Your task to perform on an android device: Find coffee shops on Maps Image 0: 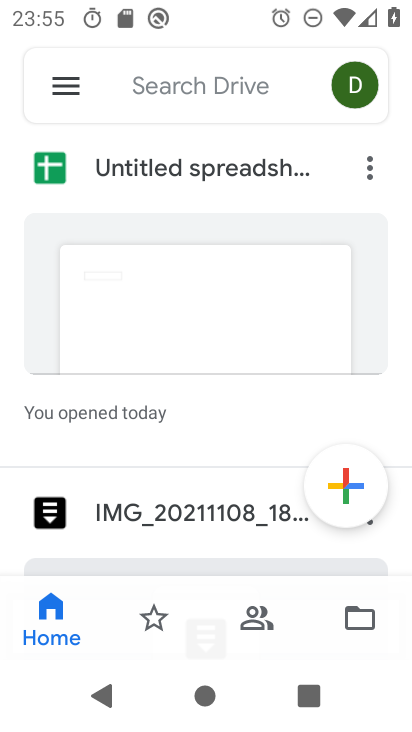
Step 0: press home button
Your task to perform on an android device: Find coffee shops on Maps Image 1: 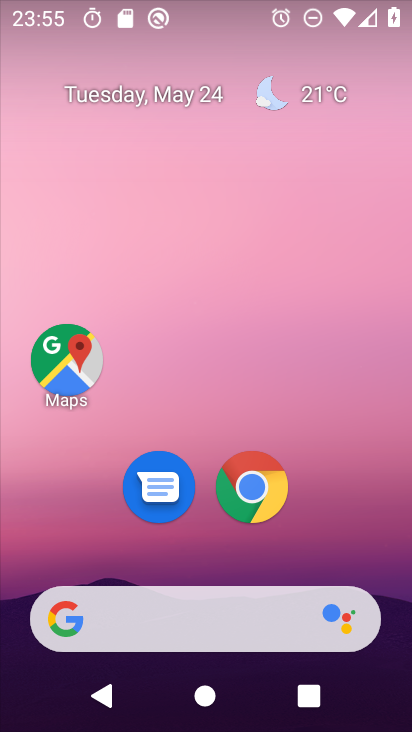
Step 1: click (70, 363)
Your task to perform on an android device: Find coffee shops on Maps Image 2: 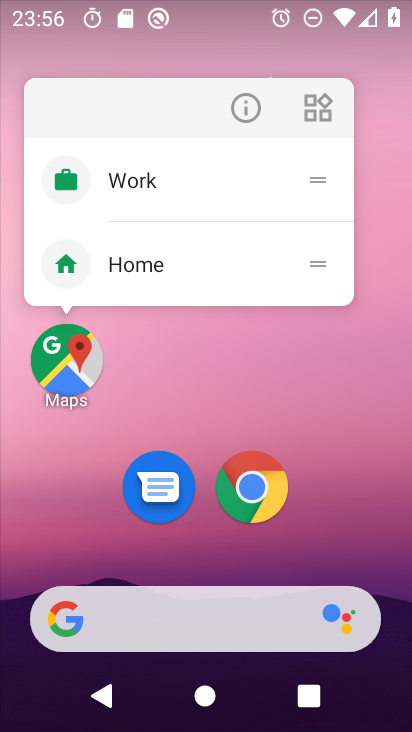
Step 2: click (65, 361)
Your task to perform on an android device: Find coffee shops on Maps Image 3: 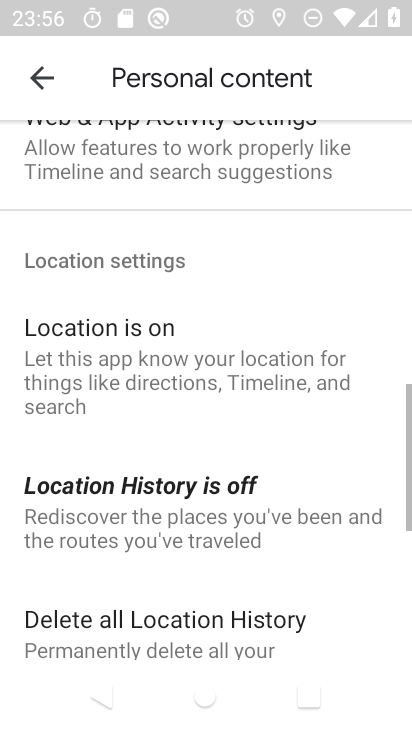
Step 3: click (34, 82)
Your task to perform on an android device: Find coffee shops on Maps Image 4: 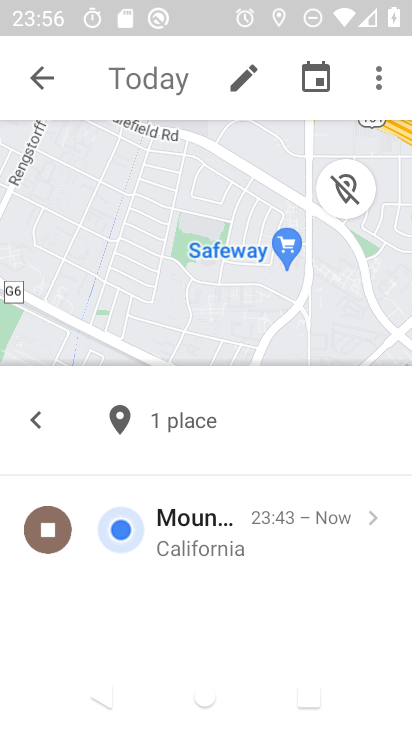
Step 4: click (34, 82)
Your task to perform on an android device: Find coffee shops on Maps Image 5: 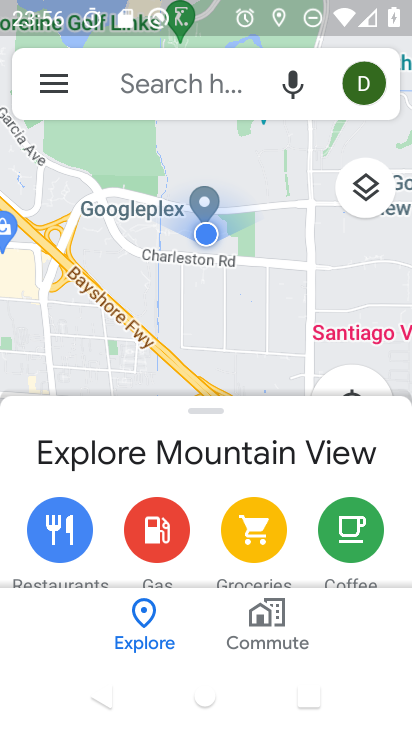
Step 5: click (129, 89)
Your task to perform on an android device: Find coffee shops on Maps Image 6: 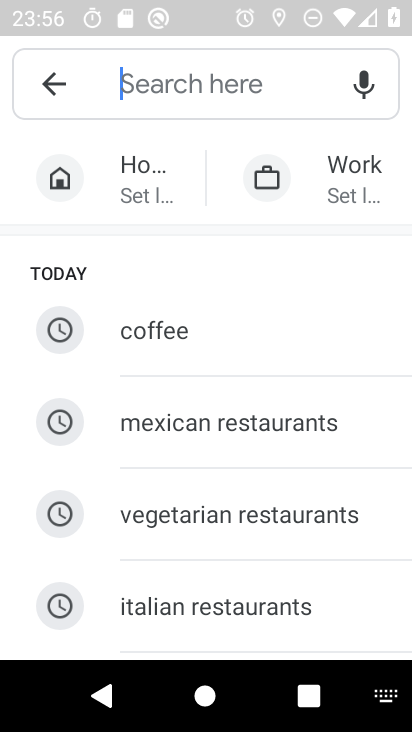
Step 6: type "coffee shops"
Your task to perform on an android device: Find coffee shops on Maps Image 7: 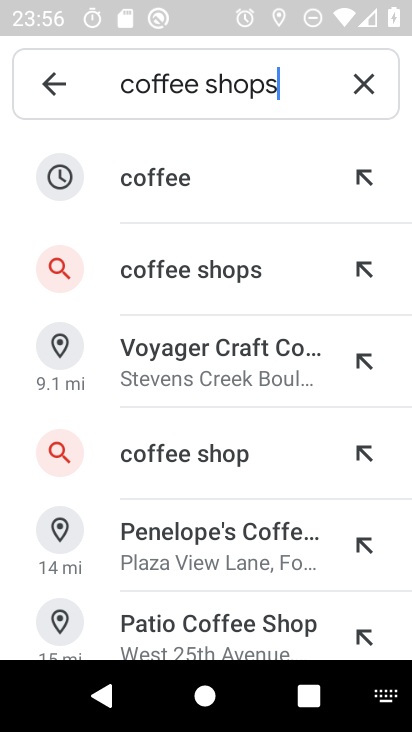
Step 7: click (189, 285)
Your task to perform on an android device: Find coffee shops on Maps Image 8: 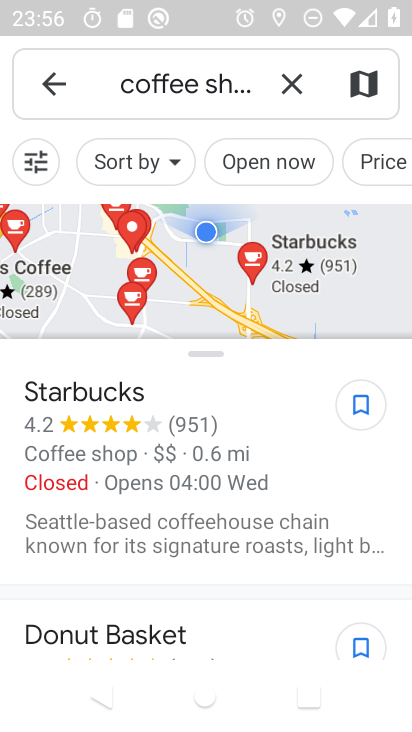
Step 8: task complete